Your task to perform on an android device: refresh tabs in the chrome app Image 0: 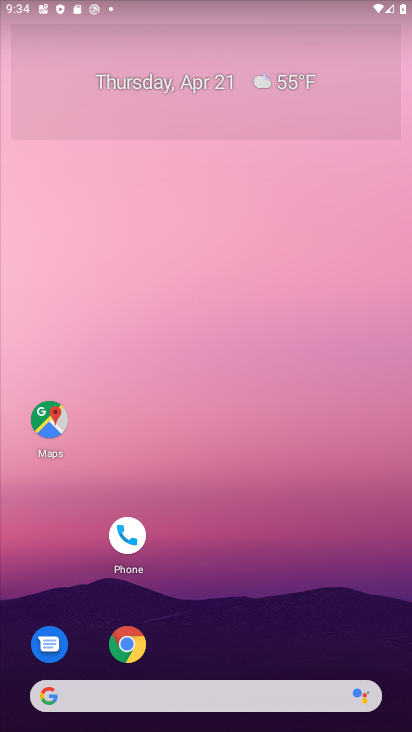
Step 0: drag from (261, 610) to (275, 147)
Your task to perform on an android device: refresh tabs in the chrome app Image 1: 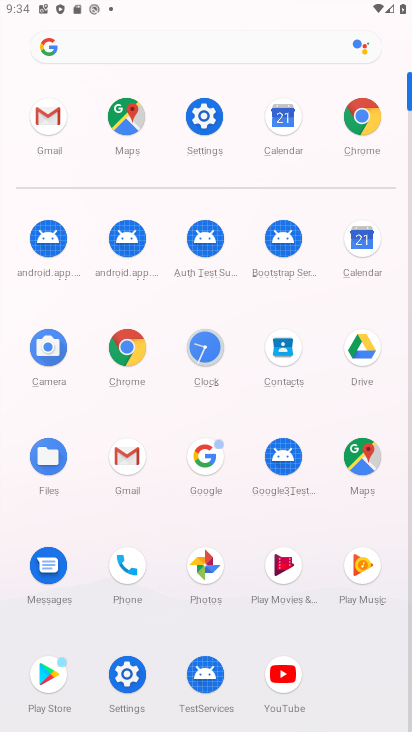
Step 1: click (124, 346)
Your task to perform on an android device: refresh tabs in the chrome app Image 2: 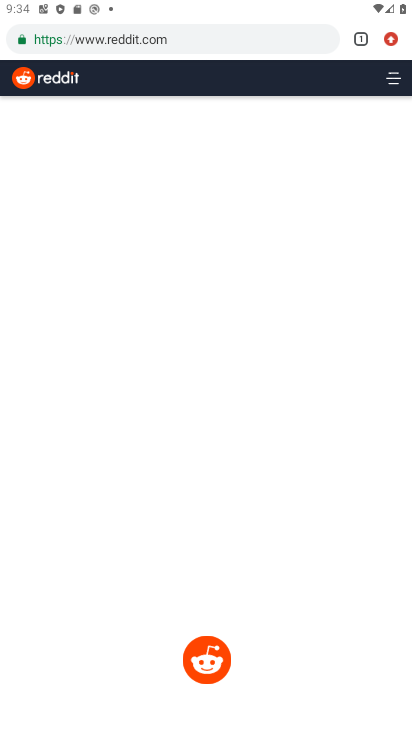
Step 2: click (402, 37)
Your task to perform on an android device: refresh tabs in the chrome app Image 3: 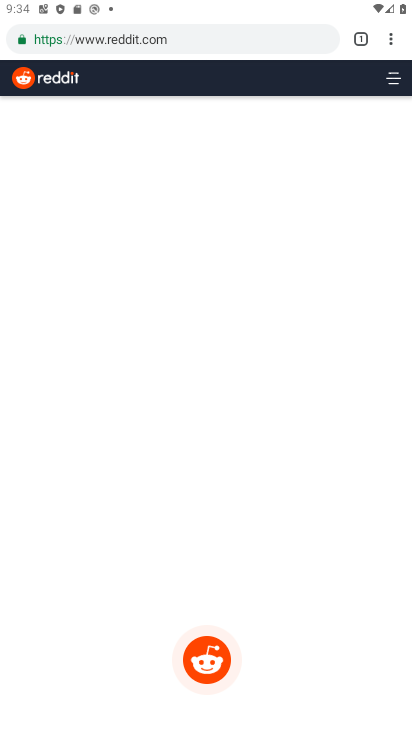
Step 3: task complete